Your task to perform on an android device: Open network settings Image 0: 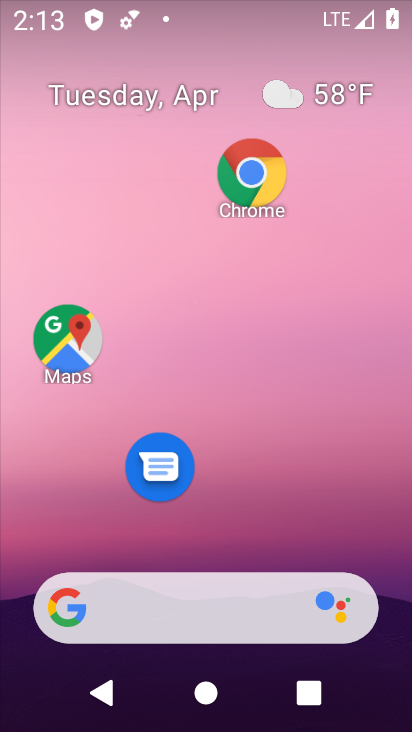
Step 0: drag from (257, 497) to (262, 64)
Your task to perform on an android device: Open network settings Image 1: 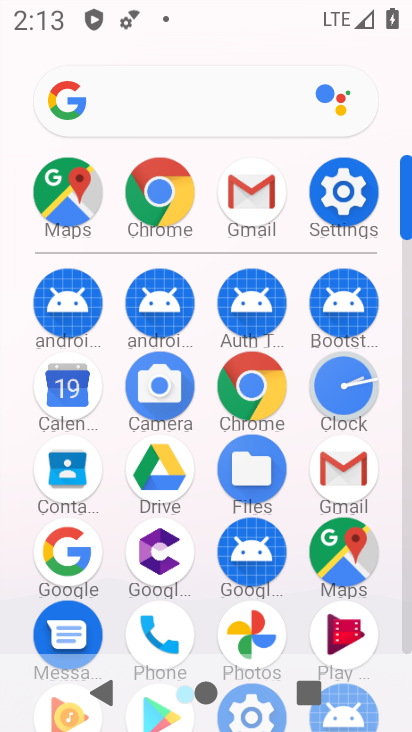
Step 1: click (352, 197)
Your task to perform on an android device: Open network settings Image 2: 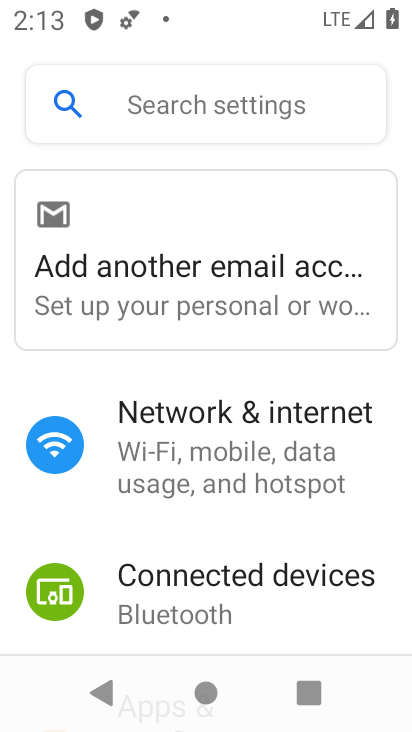
Step 2: click (225, 441)
Your task to perform on an android device: Open network settings Image 3: 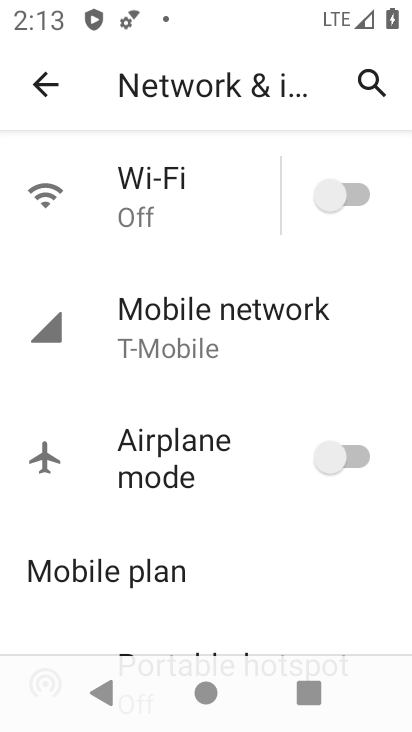
Step 3: drag from (260, 610) to (281, 227)
Your task to perform on an android device: Open network settings Image 4: 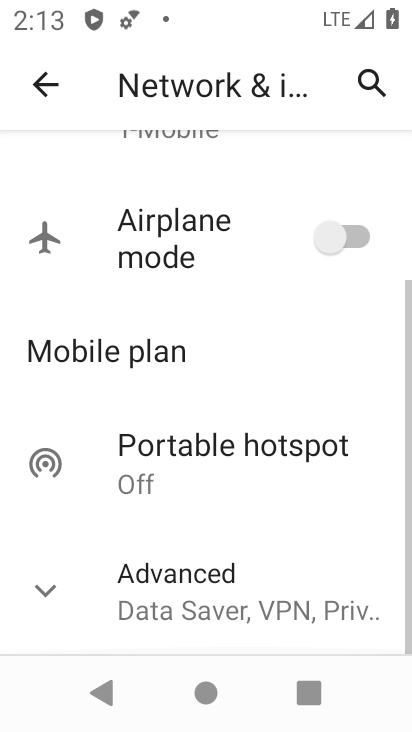
Step 4: drag from (257, 316) to (276, 698)
Your task to perform on an android device: Open network settings Image 5: 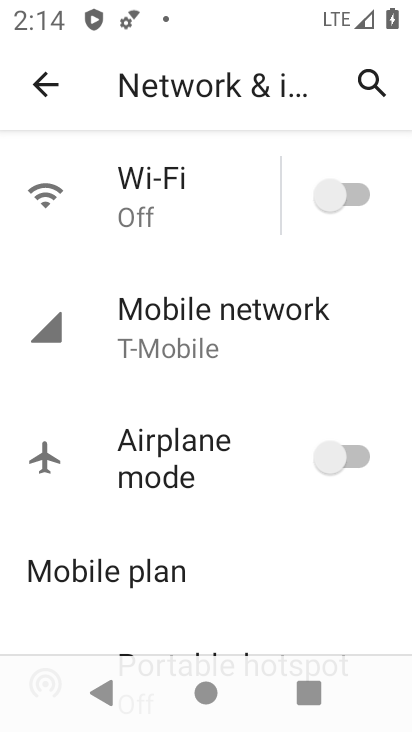
Step 5: click (259, 338)
Your task to perform on an android device: Open network settings Image 6: 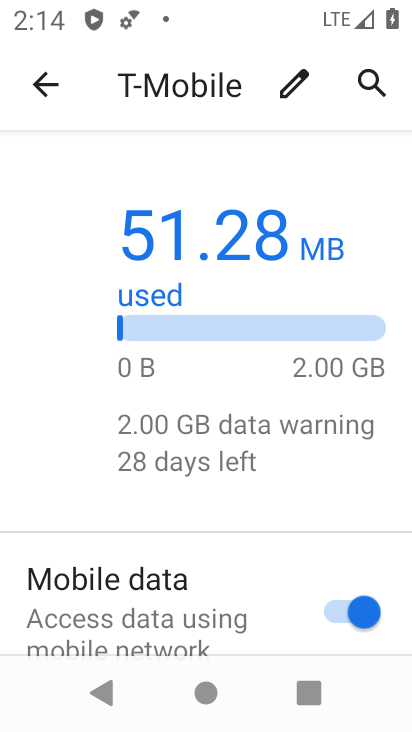
Step 6: task complete